Your task to perform on an android device: turn notification dots on Image 0: 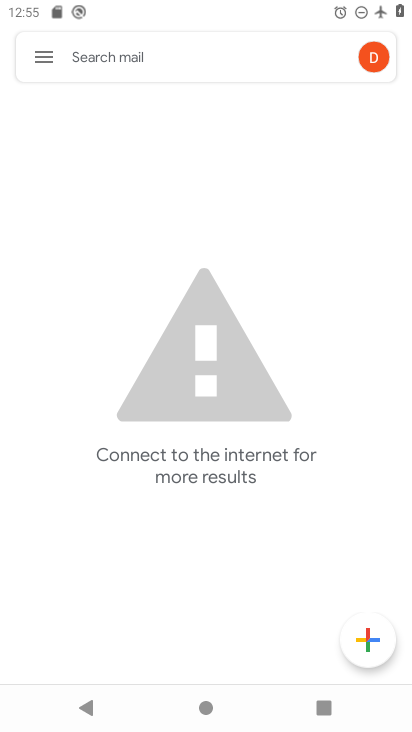
Step 0: press home button
Your task to perform on an android device: turn notification dots on Image 1: 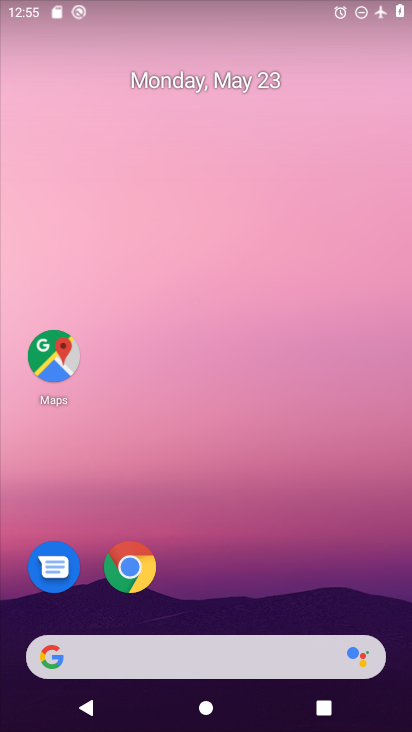
Step 1: drag from (240, 604) to (242, 326)
Your task to perform on an android device: turn notification dots on Image 2: 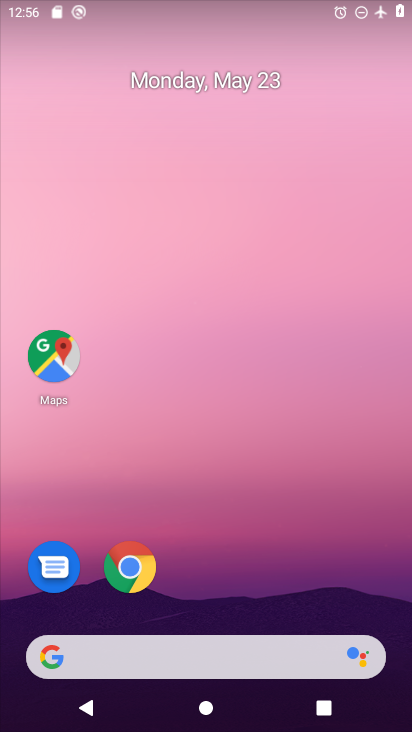
Step 2: drag from (206, 575) to (223, 153)
Your task to perform on an android device: turn notification dots on Image 3: 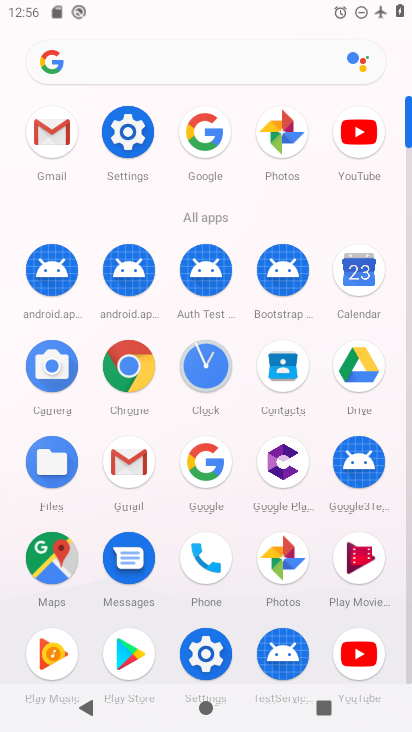
Step 3: click (133, 134)
Your task to perform on an android device: turn notification dots on Image 4: 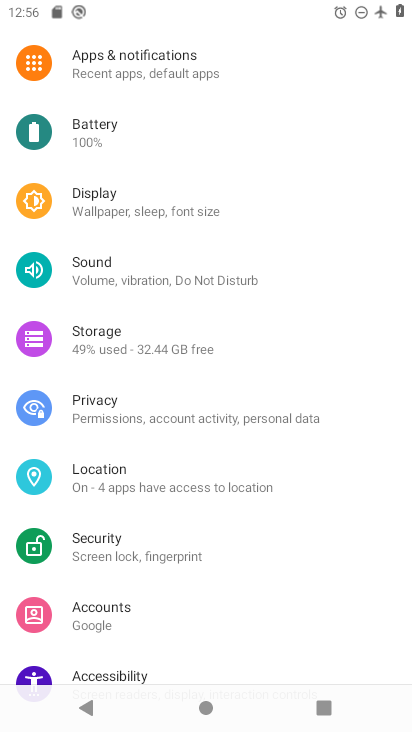
Step 4: click (167, 76)
Your task to perform on an android device: turn notification dots on Image 5: 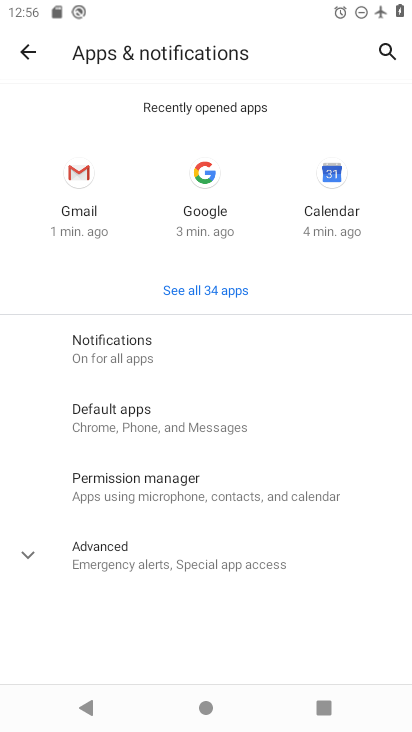
Step 5: click (115, 360)
Your task to perform on an android device: turn notification dots on Image 6: 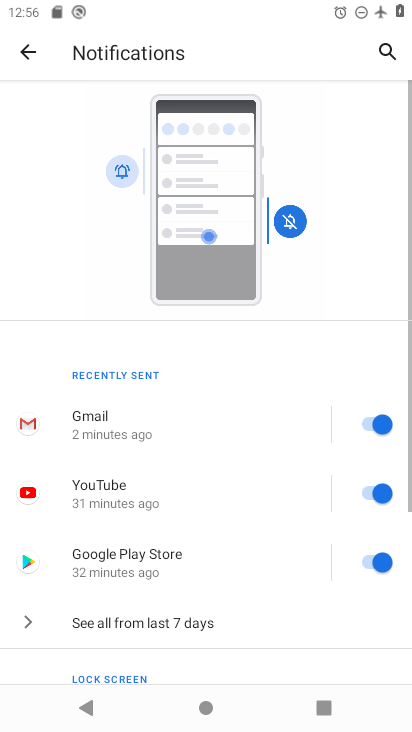
Step 6: drag from (152, 561) to (212, 141)
Your task to perform on an android device: turn notification dots on Image 7: 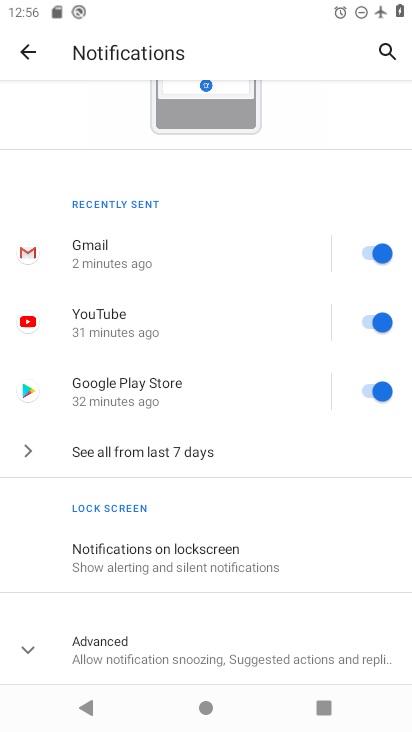
Step 7: click (194, 646)
Your task to perform on an android device: turn notification dots on Image 8: 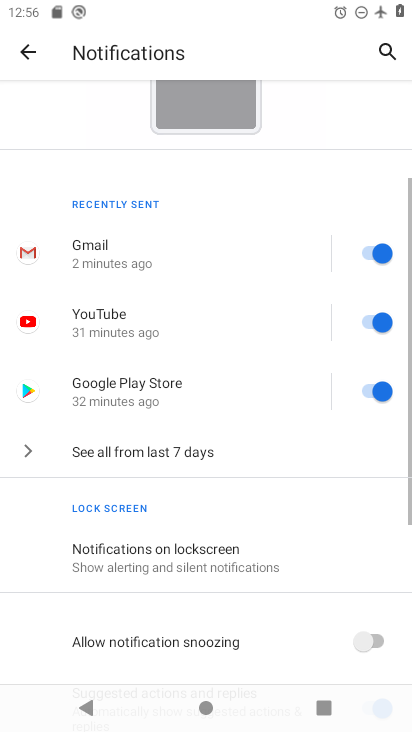
Step 8: task complete